Your task to perform on an android device: turn on wifi Image 0: 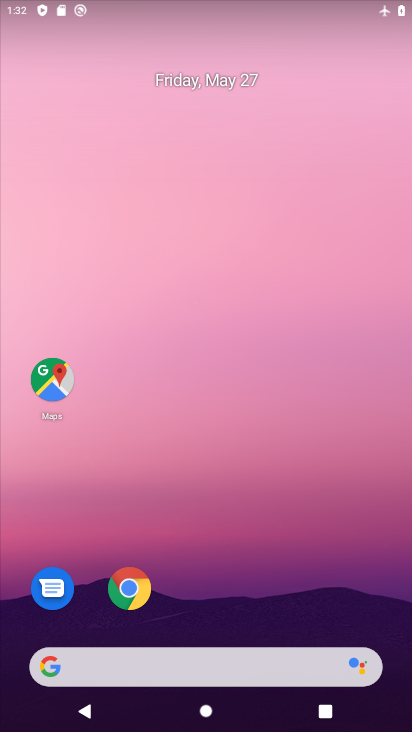
Step 0: drag from (362, 616) to (358, 164)
Your task to perform on an android device: turn on wifi Image 1: 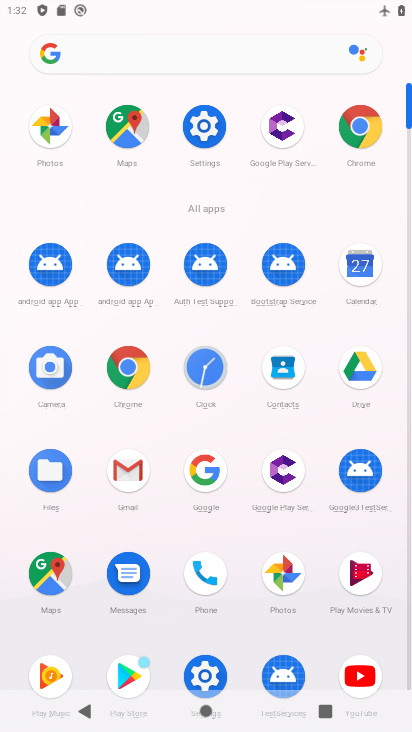
Step 1: click (204, 671)
Your task to perform on an android device: turn on wifi Image 2: 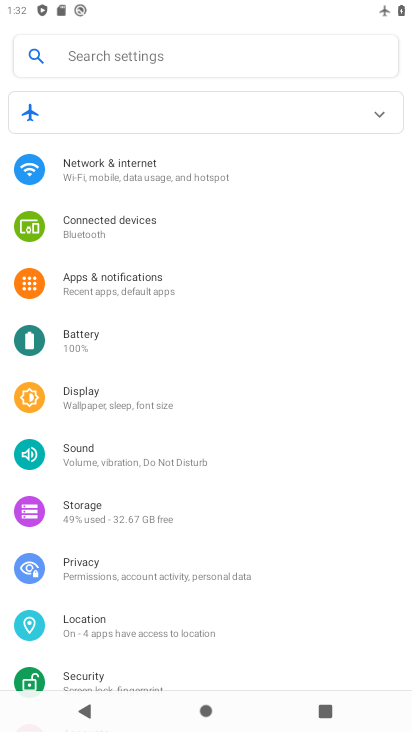
Step 2: click (116, 165)
Your task to perform on an android device: turn on wifi Image 3: 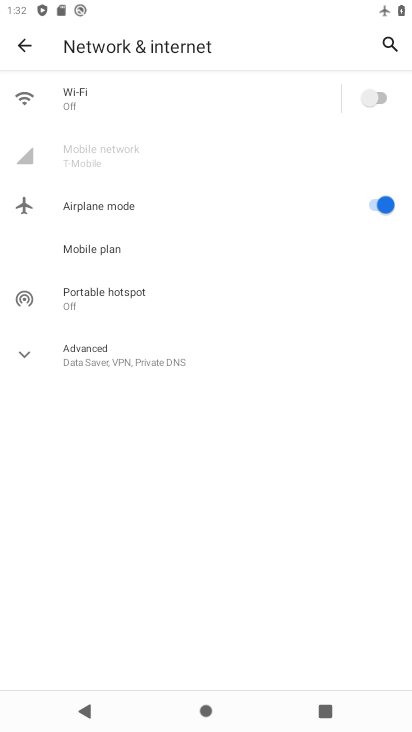
Step 3: click (384, 95)
Your task to perform on an android device: turn on wifi Image 4: 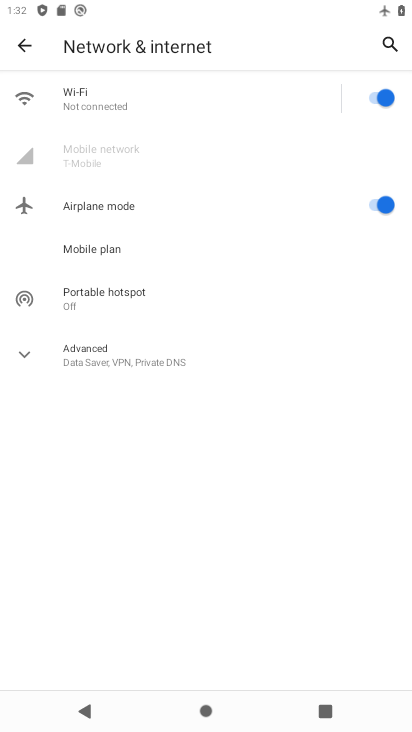
Step 4: task complete